Your task to perform on an android device: turn on notifications settings in the gmail app Image 0: 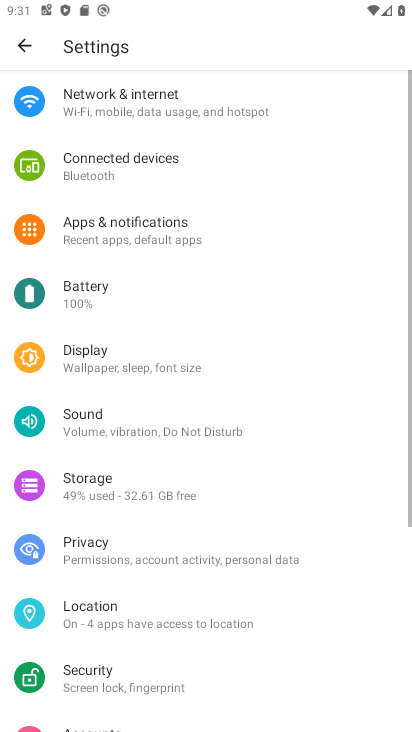
Step 0: press home button
Your task to perform on an android device: turn on notifications settings in the gmail app Image 1: 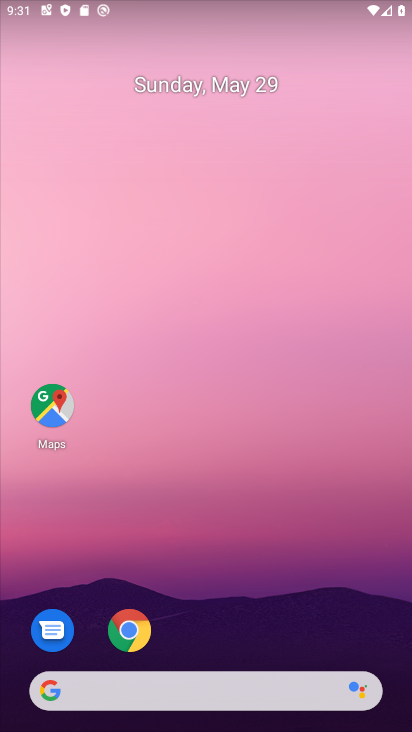
Step 1: drag from (234, 509) to (213, 36)
Your task to perform on an android device: turn on notifications settings in the gmail app Image 2: 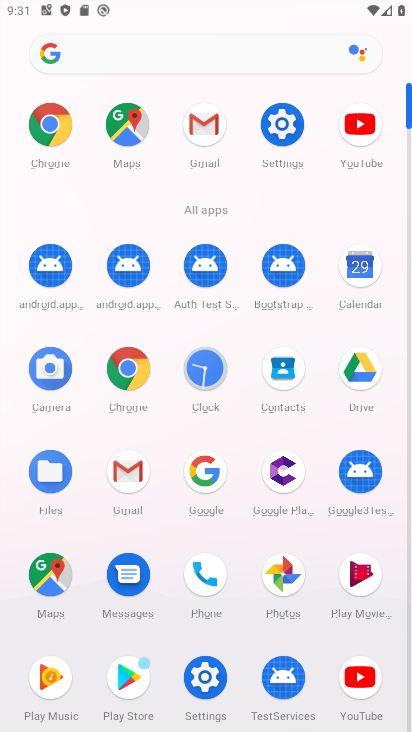
Step 2: click (121, 461)
Your task to perform on an android device: turn on notifications settings in the gmail app Image 3: 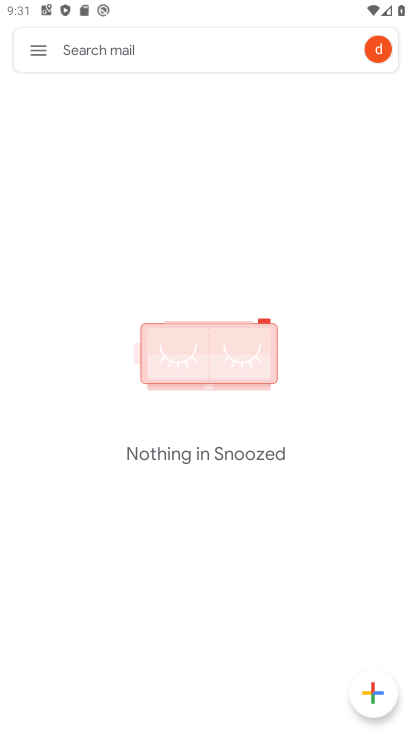
Step 3: click (37, 38)
Your task to perform on an android device: turn on notifications settings in the gmail app Image 4: 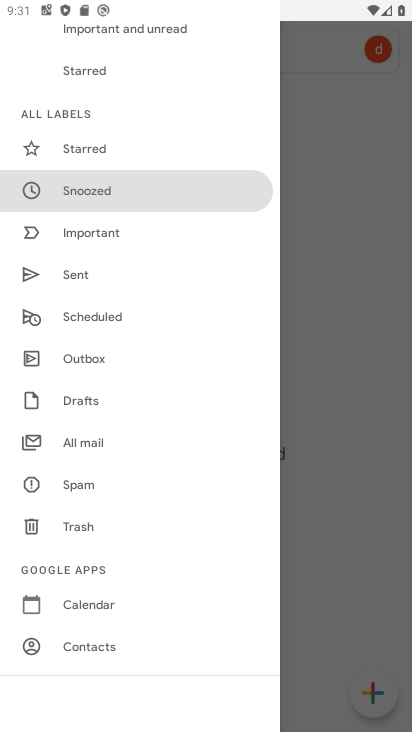
Step 4: drag from (149, 228) to (229, 80)
Your task to perform on an android device: turn on notifications settings in the gmail app Image 5: 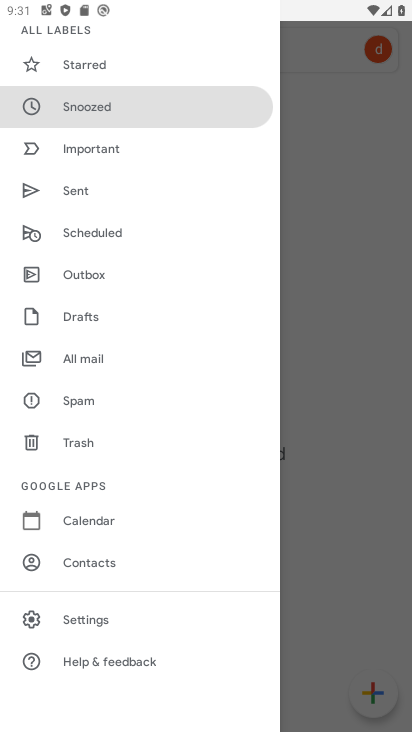
Step 5: click (98, 611)
Your task to perform on an android device: turn on notifications settings in the gmail app Image 6: 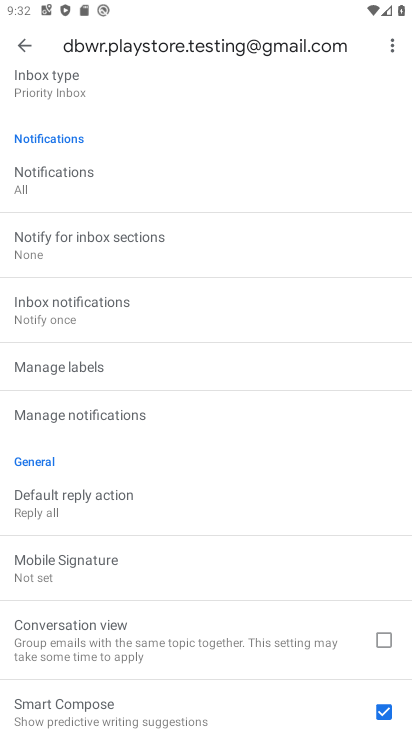
Step 6: click (134, 427)
Your task to perform on an android device: turn on notifications settings in the gmail app Image 7: 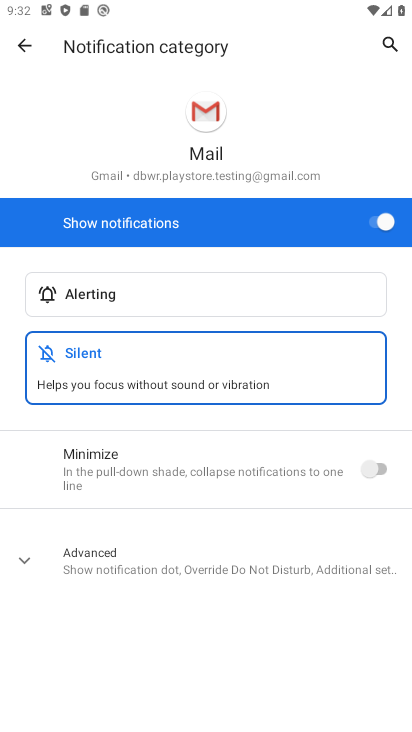
Step 7: task complete